Your task to perform on an android device: Toggle the flashlight Image 0: 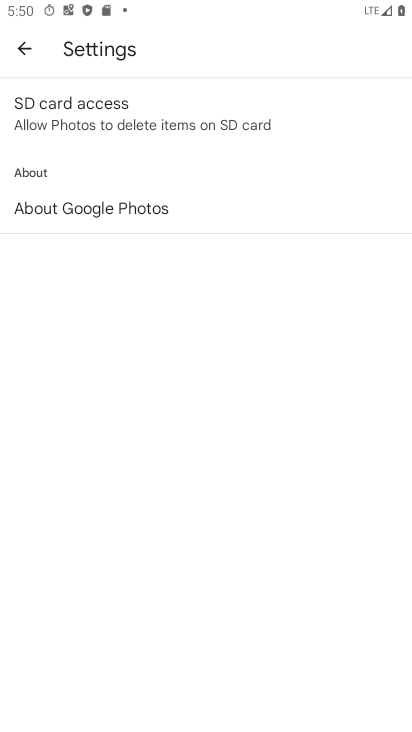
Step 0: press home button
Your task to perform on an android device: Toggle the flashlight Image 1: 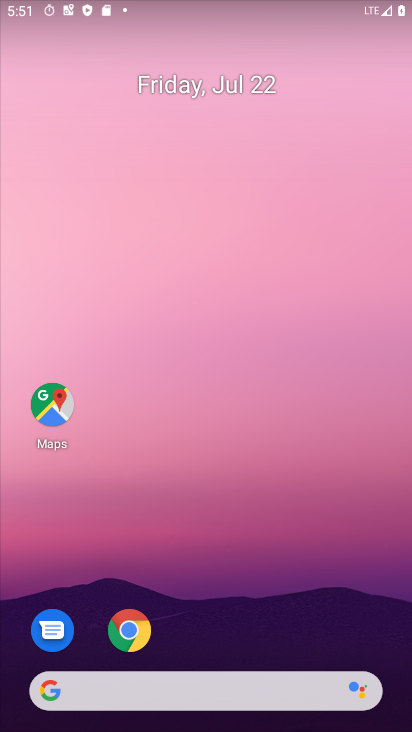
Step 1: task complete